Your task to perform on an android device: toggle pop-ups in chrome Image 0: 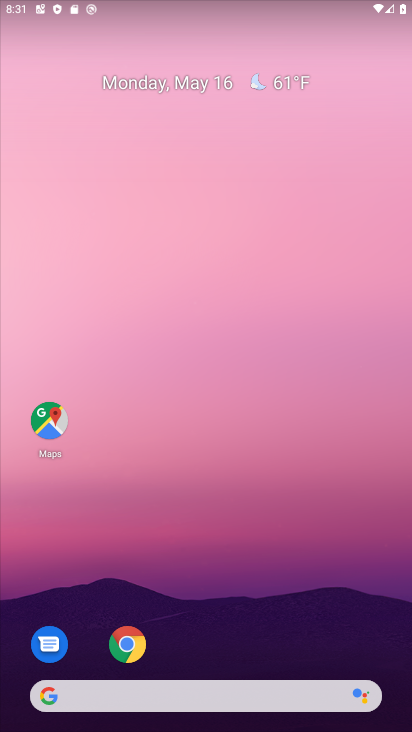
Step 0: click (129, 643)
Your task to perform on an android device: toggle pop-ups in chrome Image 1: 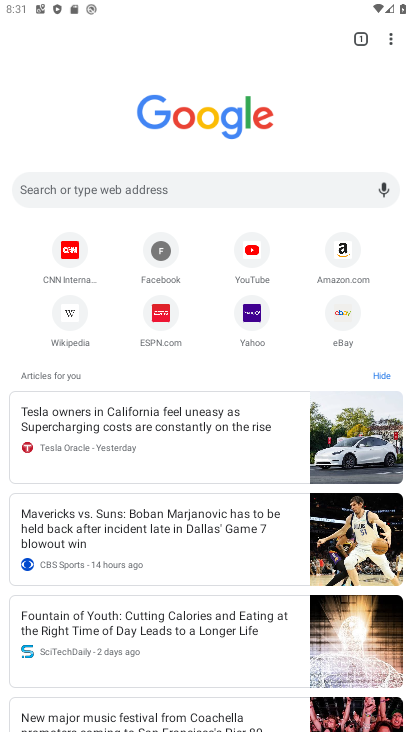
Step 1: click (388, 40)
Your task to perform on an android device: toggle pop-ups in chrome Image 2: 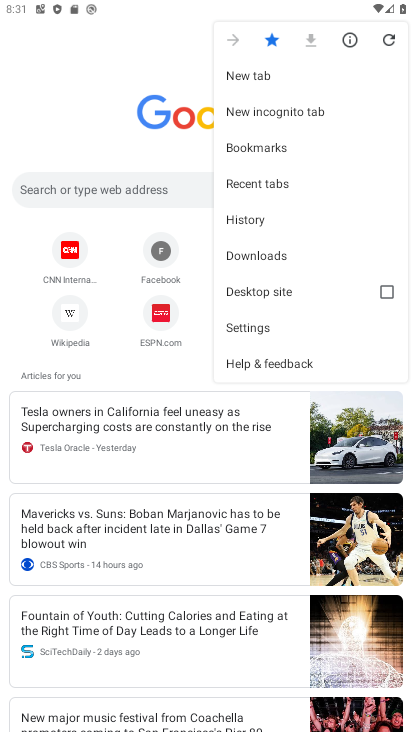
Step 2: click (251, 335)
Your task to perform on an android device: toggle pop-ups in chrome Image 3: 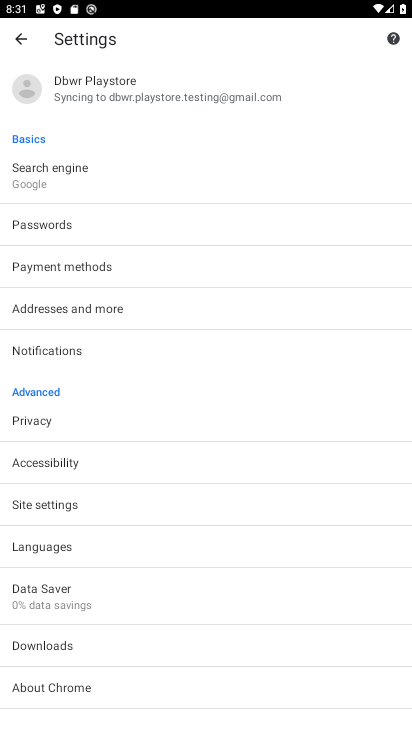
Step 3: click (56, 504)
Your task to perform on an android device: toggle pop-ups in chrome Image 4: 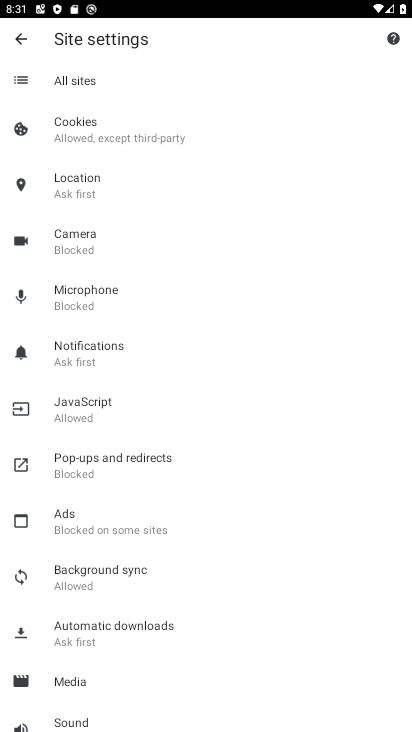
Step 4: click (86, 471)
Your task to perform on an android device: toggle pop-ups in chrome Image 5: 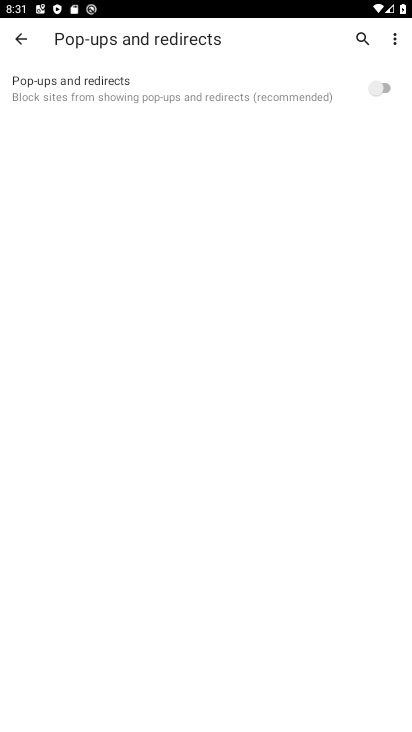
Step 5: click (372, 90)
Your task to perform on an android device: toggle pop-ups in chrome Image 6: 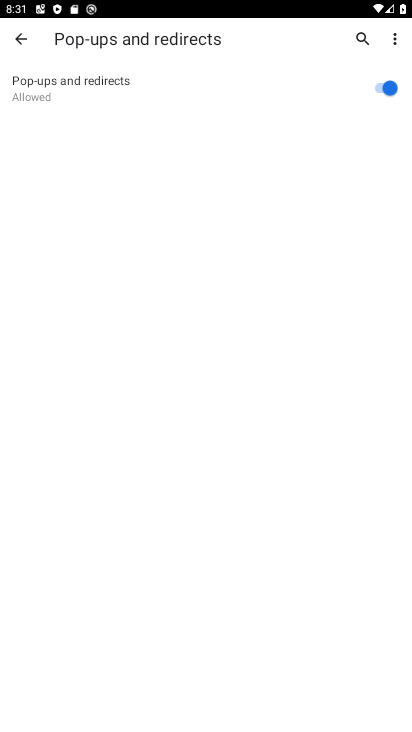
Step 6: task complete